Your task to perform on an android device: Open Google Chrome Image 0: 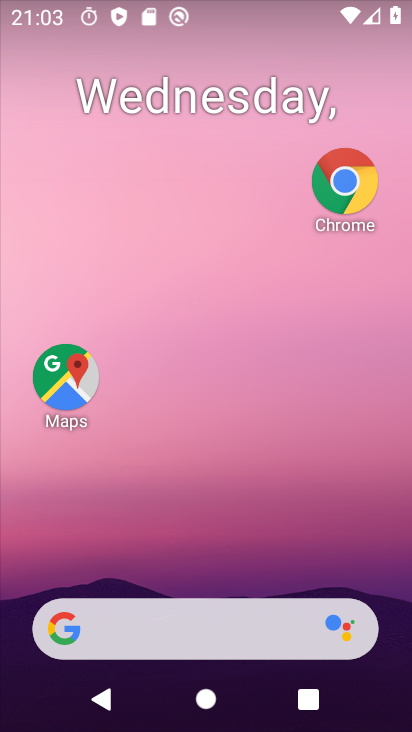
Step 0: drag from (245, 646) to (228, 283)
Your task to perform on an android device: Open Google Chrome Image 1: 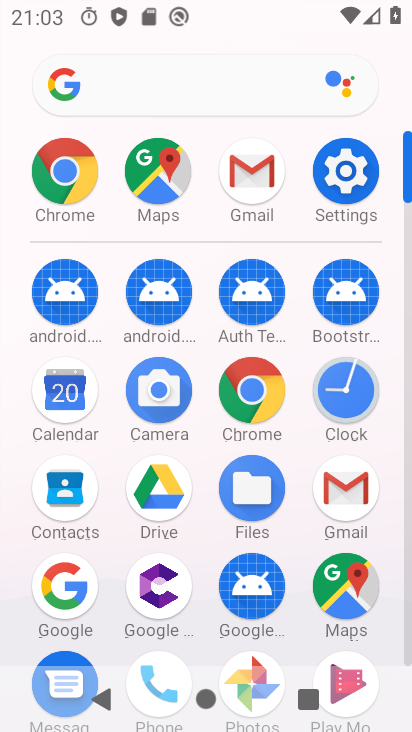
Step 1: click (251, 385)
Your task to perform on an android device: Open Google Chrome Image 2: 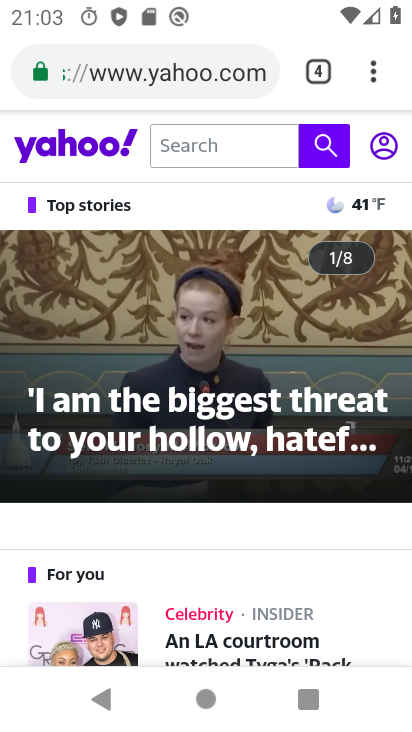
Step 2: click (311, 86)
Your task to perform on an android device: Open Google Chrome Image 3: 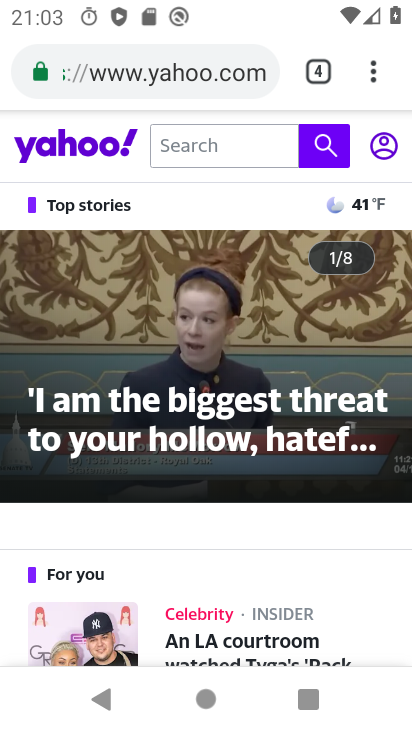
Step 3: click (316, 63)
Your task to perform on an android device: Open Google Chrome Image 4: 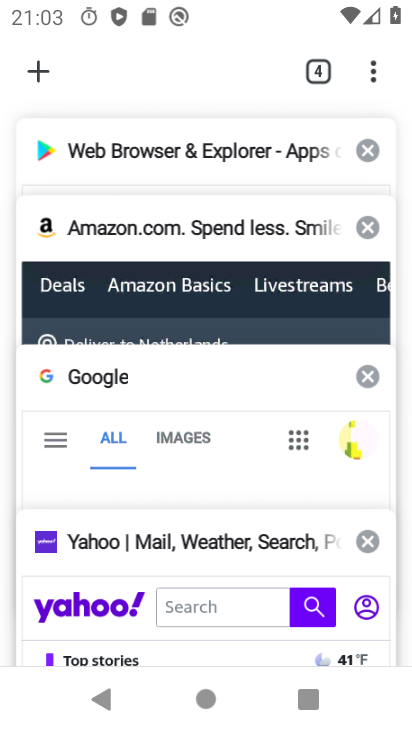
Step 4: click (46, 63)
Your task to perform on an android device: Open Google Chrome Image 5: 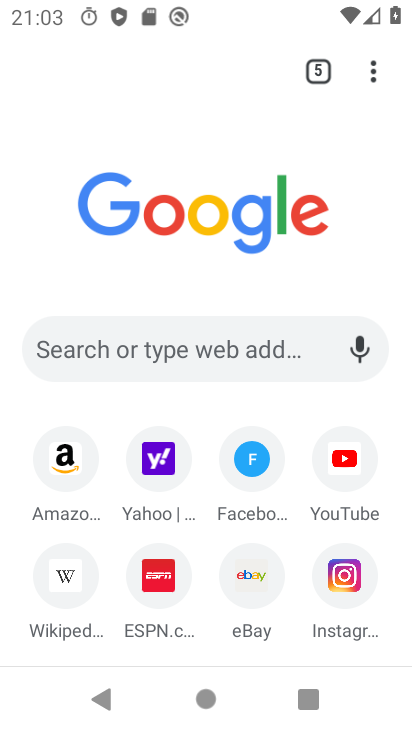
Step 5: task complete